Your task to perform on an android device: toggle notifications settings in the gmail app Image 0: 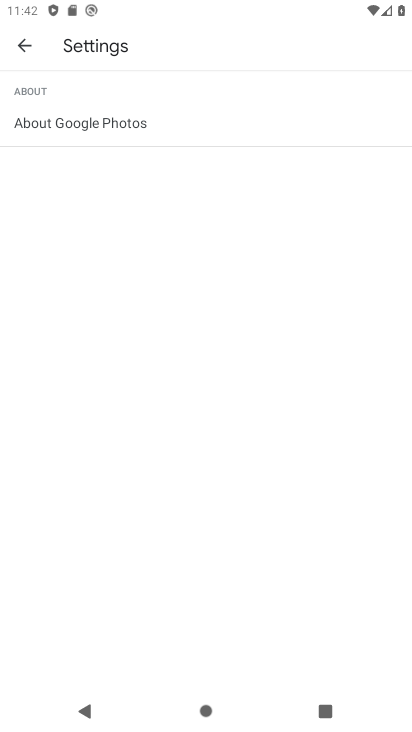
Step 0: press home button
Your task to perform on an android device: toggle notifications settings in the gmail app Image 1: 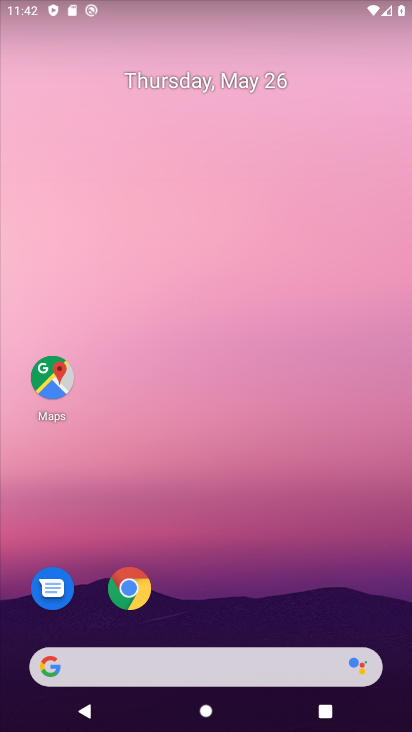
Step 1: drag from (281, 551) to (272, 215)
Your task to perform on an android device: toggle notifications settings in the gmail app Image 2: 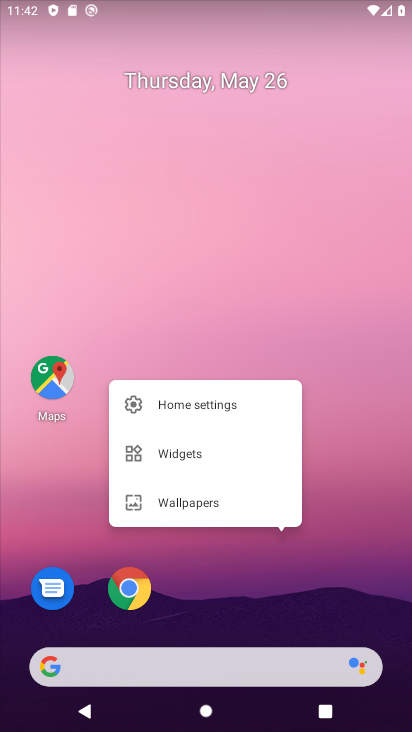
Step 2: drag from (340, 578) to (345, 180)
Your task to perform on an android device: toggle notifications settings in the gmail app Image 3: 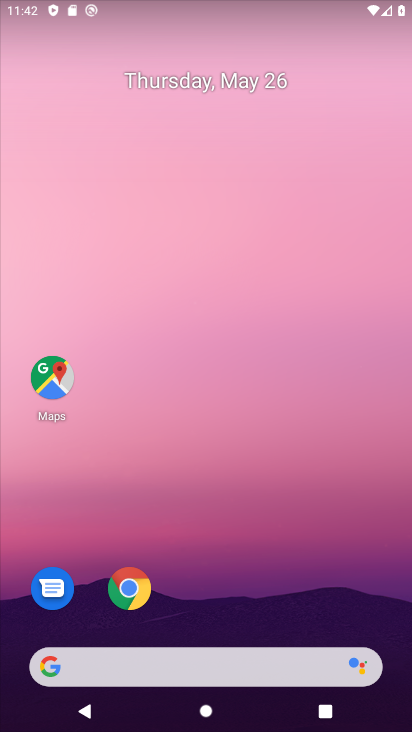
Step 3: drag from (302, 624) to (316, 153)
Your task to perform on an android device: toggle notifications settings in the gmail app Image 4: 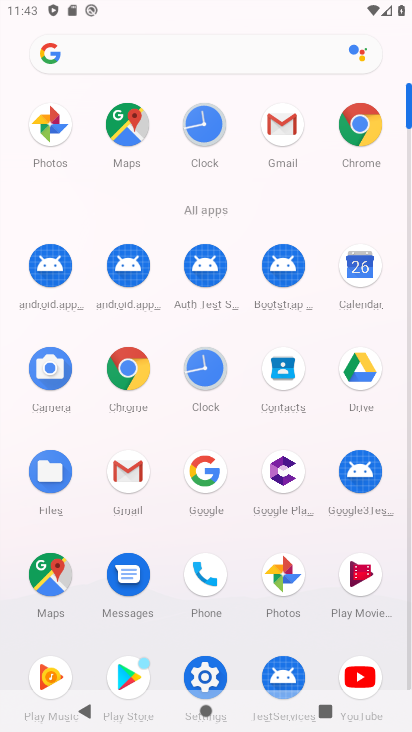
Step 4: click (125, 477)
Your task to perform on an android device: toggle notifications settings in the gmail app Image 5: 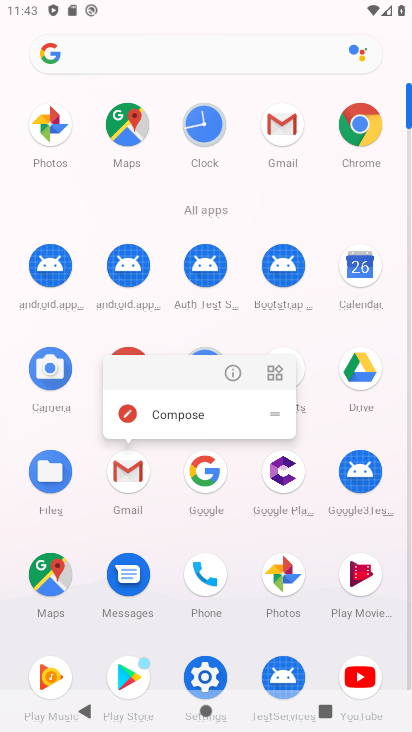
Step 5: click (230, 371)
Your task to perform on an android device: toggle notifications settings in the gmail app Image 6: 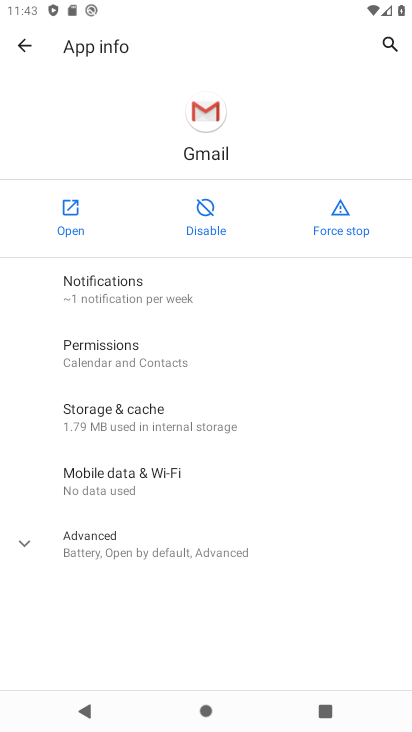
Step 6: click (184, 302)
Your task to perform on an android device: toggle notifications settings in the gmail app Image 7: 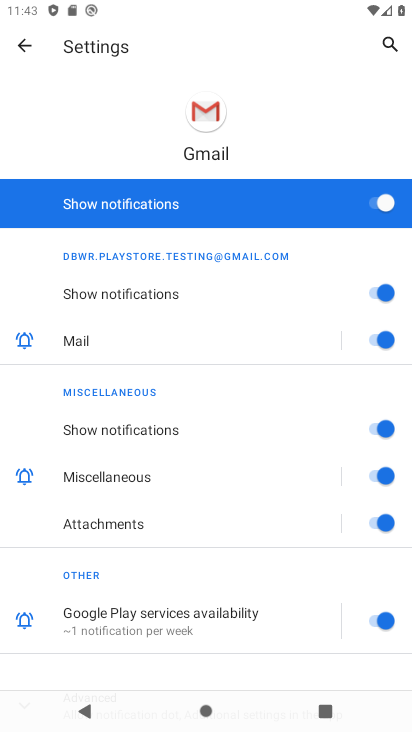
Step 7: click (387, 208)
Your task to perform on an android device: toggle notifications settings in the gmail app Image 8: 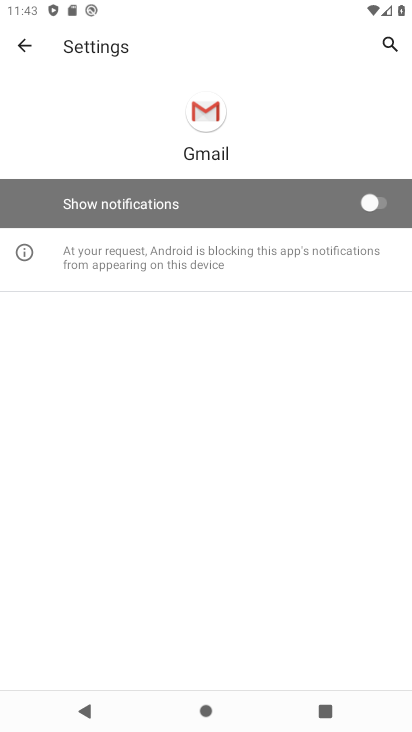
Step 8: task complete